Your task to perform on an android device: turn off smart reply in the gmail app Image 0: 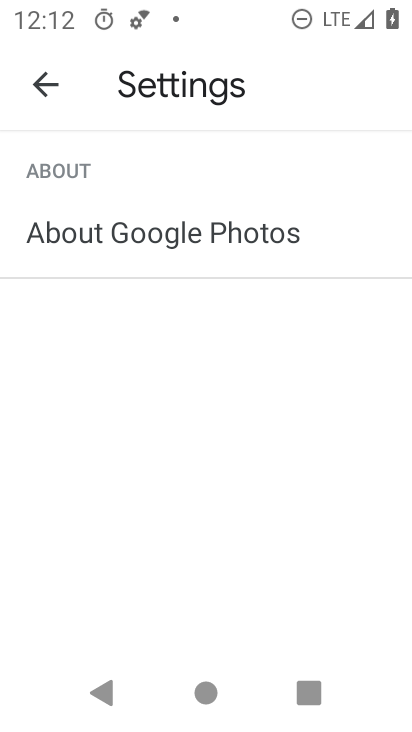
Step 0: press home button
Your task to perform on an android device: turn off smart reply in the gmail app Image 1: 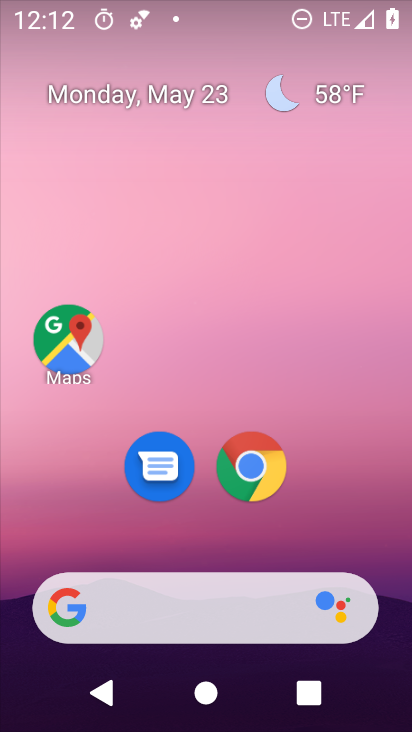
Step 1: drag from (206, 527) to (215, 33)
Your task to perform on an android device: turn off smart reply in the gmail app Image 2: 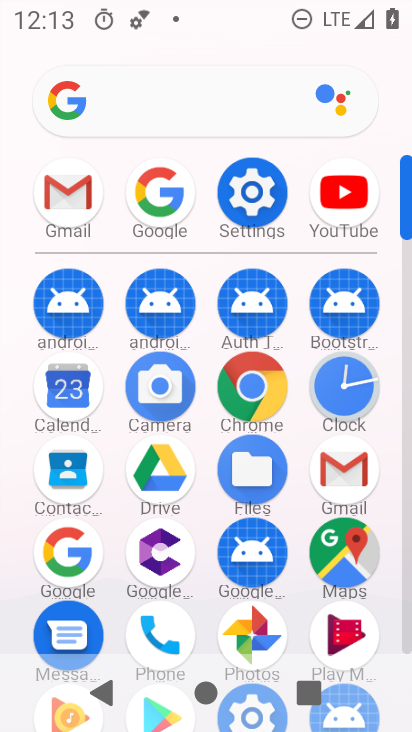
Step 2: click (63, 196)
Your task to perform on an android device: turn off smart reply in the gmail app Image 3: 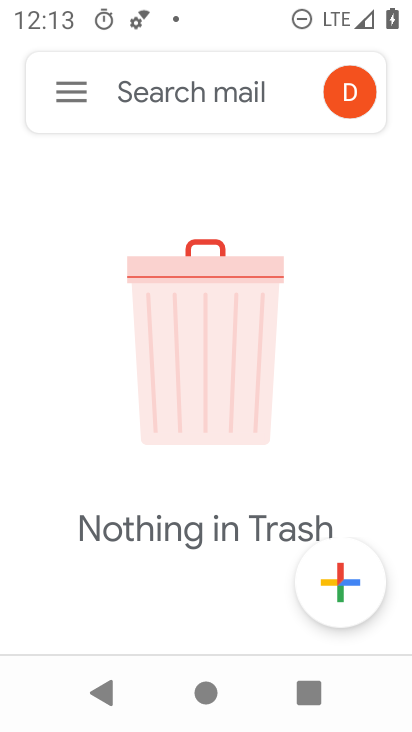
Step 3: click (54, 89)
Your task to perform on an android device: turn off smart reply in the gmail app Image 4: 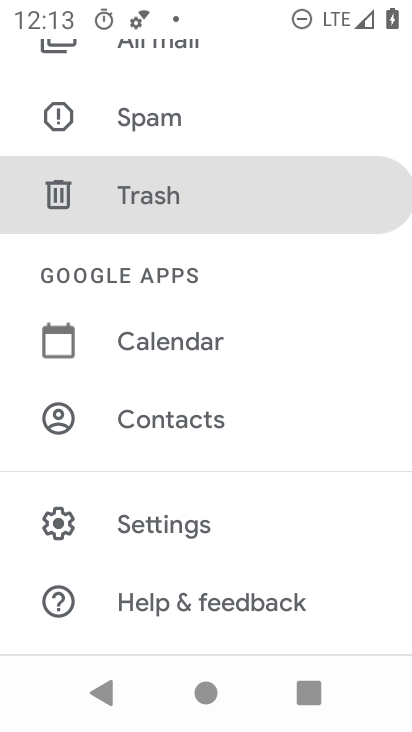
Step 4: click (176, 518)
Your task to perform on an android device: turn off smart reply in the gmail app Image 5: 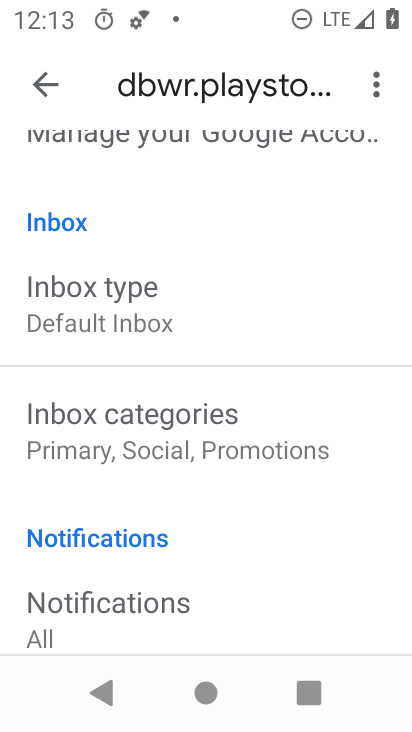
Step 5: drag from (214, 332) to (234, 84)
Your task to perform on an android device: turn off smart reply in the gmail app Image 6: 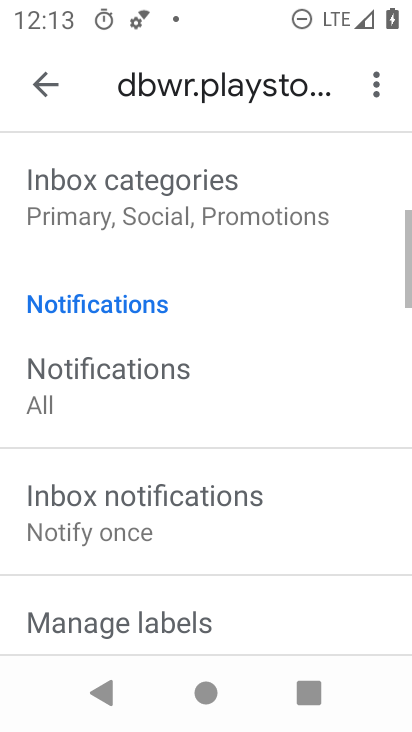
Step 6: drag from (205, 538) to (213, 263)
Your task to perform on an android device: turn off smart reply in the gmail app Image 7: 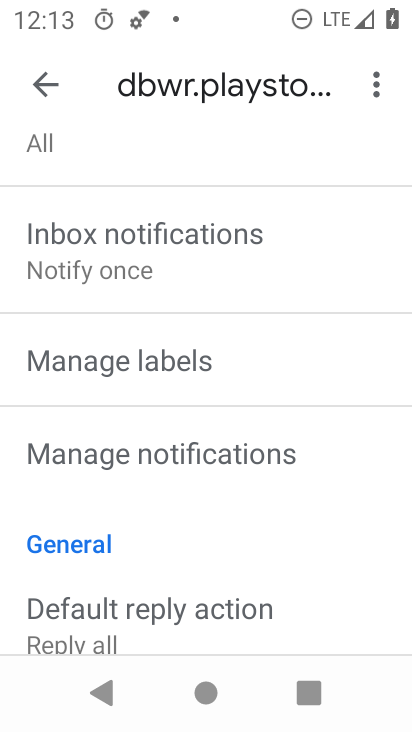
Step 7: drag from (232, 576) to (226, 246)
Your task to perform on an android device: turn off smart reply in the gmail app Image 8: 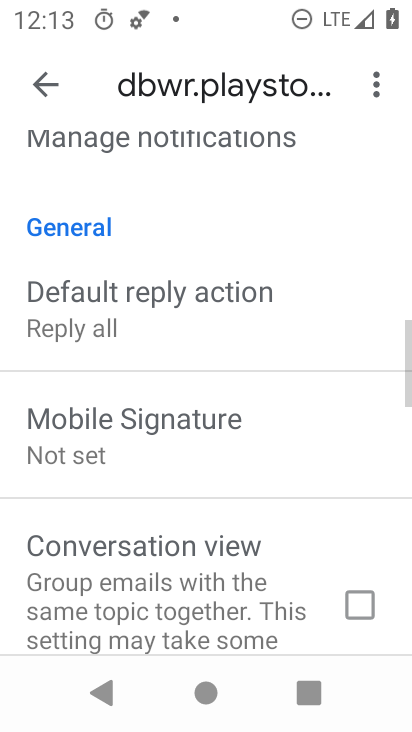
Step 8: drag from (224, 577) to (231, 263)
Your task to perform on an android device: turn off smart reply in the gmail app Image 9: 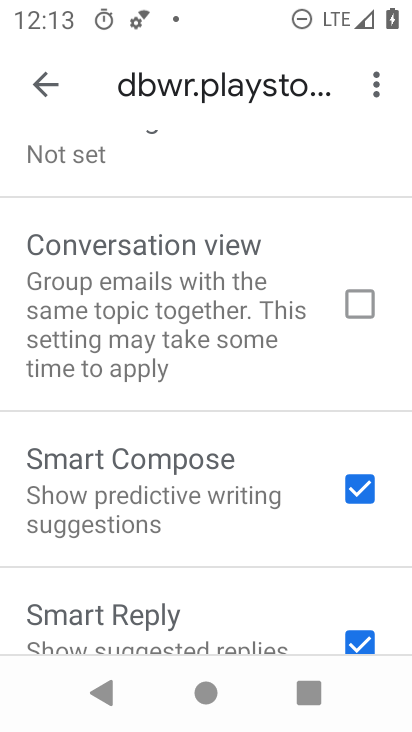
Step 9: drag from (227, 567) to (217, 318)
Your task to perform on an android device: turn off smart reply in the gmail app Image 10: 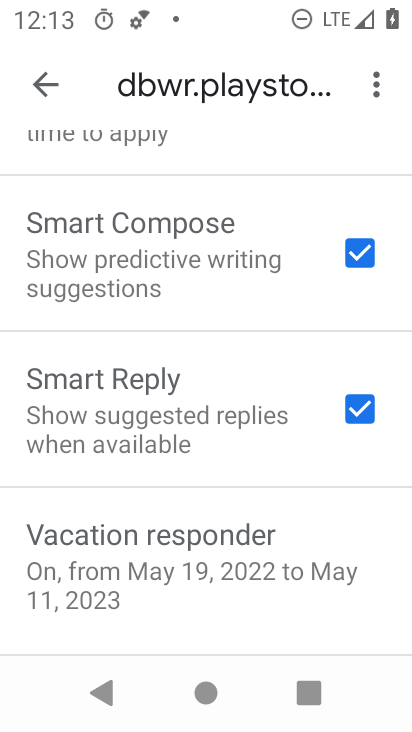
Step 10: click (354, 405)
Your task to perform on an android device: turn off smart reply in the gmail app Image 11: 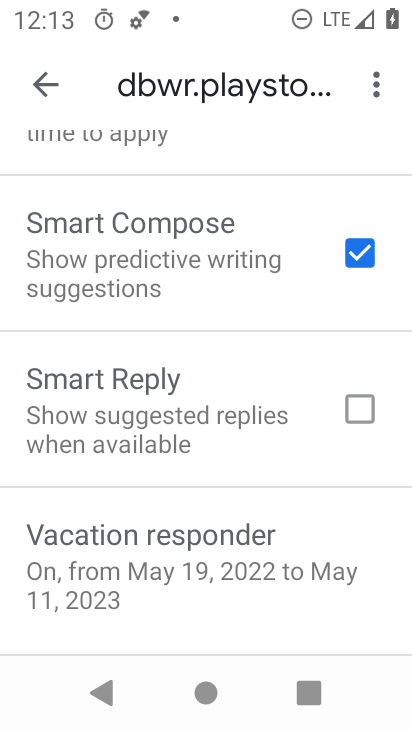
Step 11: task complete